Your task to perform on an android device: Open wifi settings Image 0: 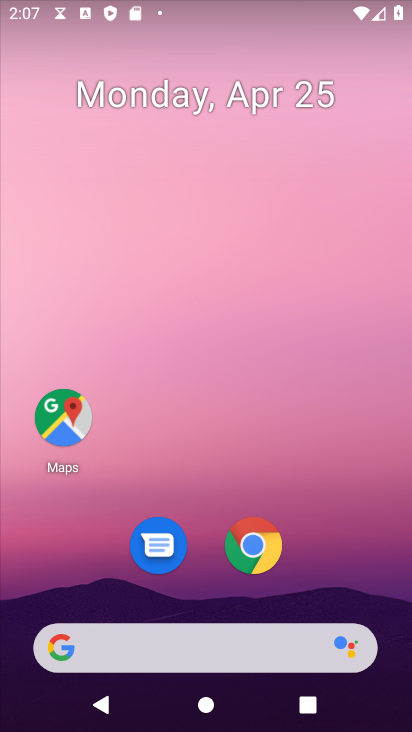
Step 0: drag from (217, 667) to (187, 12)
Your task to perform on an android device: Open wifi settings Image 1: 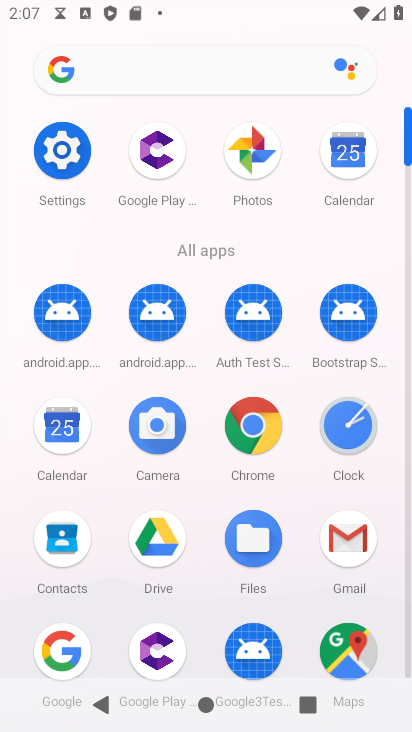
Step 1: click (50, 158)
Your task to perform on an android device: Open wifi settings Image 2: 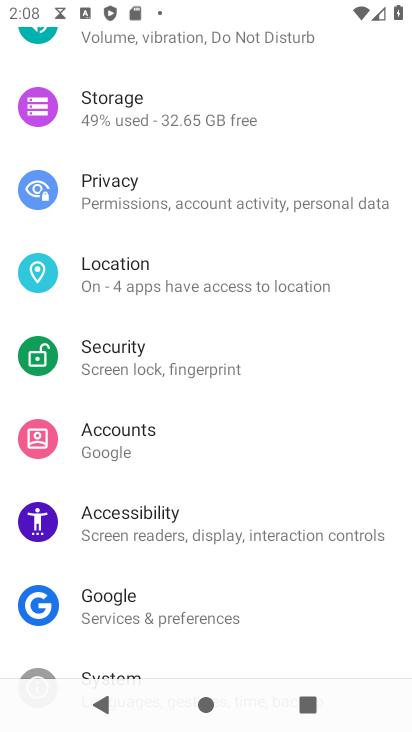
Step 2: drag from (193, 64) to (187, 589)
Your task to perform on an android device: Open wifi settings Image 3: 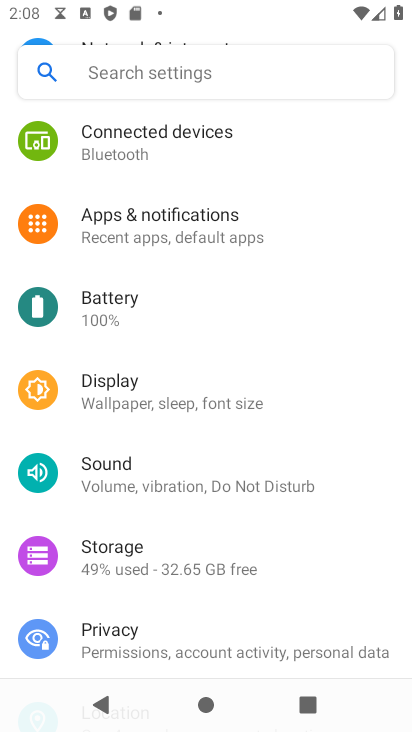
Step 3: drag from (151, 174) to (198, 522)
Your task to perform on an android device: Open wifi settings Image 4: 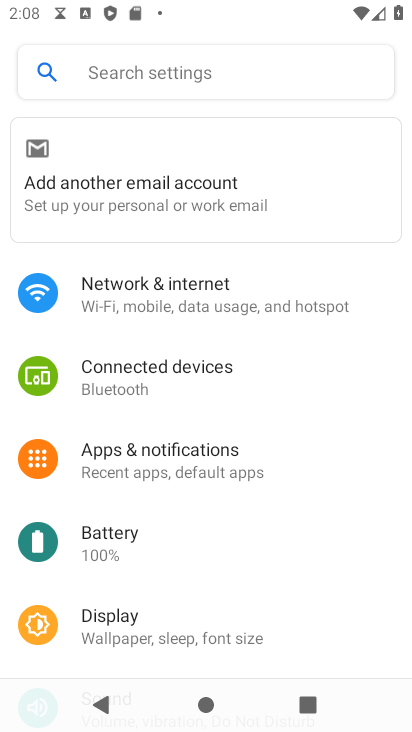
Step 4: click (158, 280)
Your task to perform on an android device: Open wifi settings Image 5: 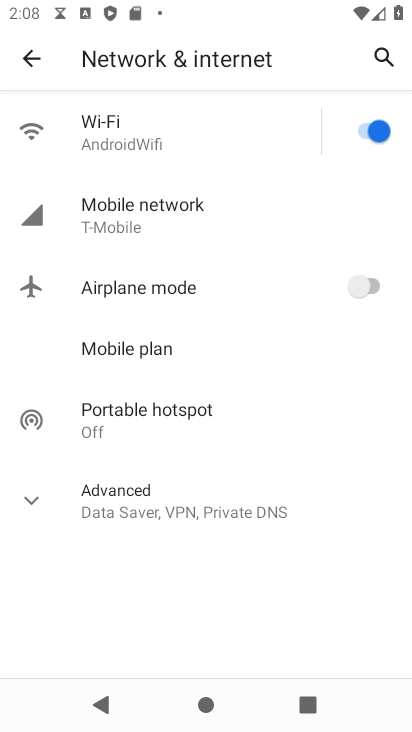
Step 5: click (111, 136)
Your task to perform on an android device: Open wifi settings Image 6: 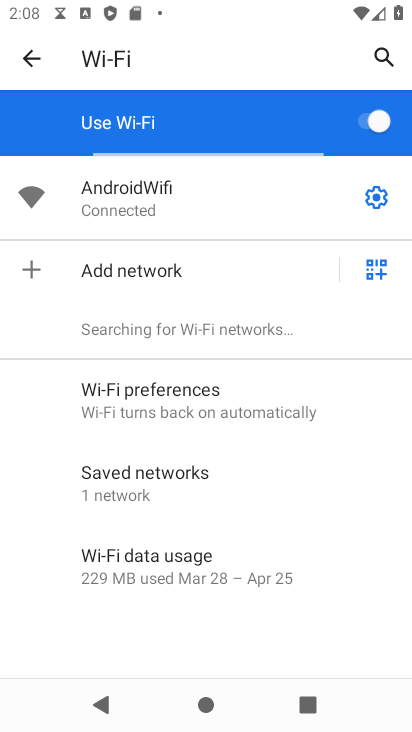
Step 6: task complete